Your task to perform on an android device: Go to display settings Image 0: 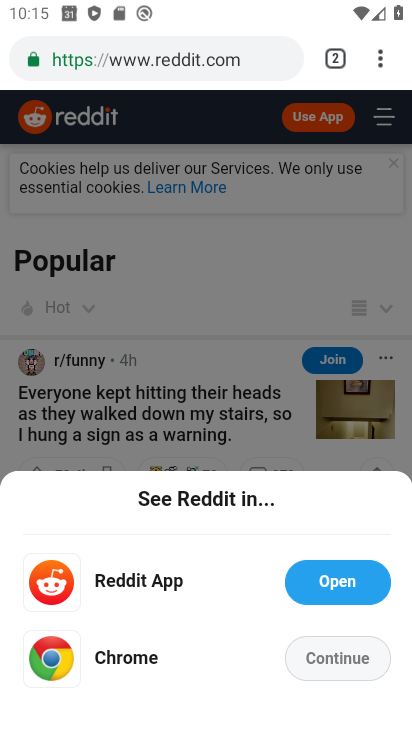
Step 0: press home button
Your task to perform on an android device: Go to display settings Image 1: 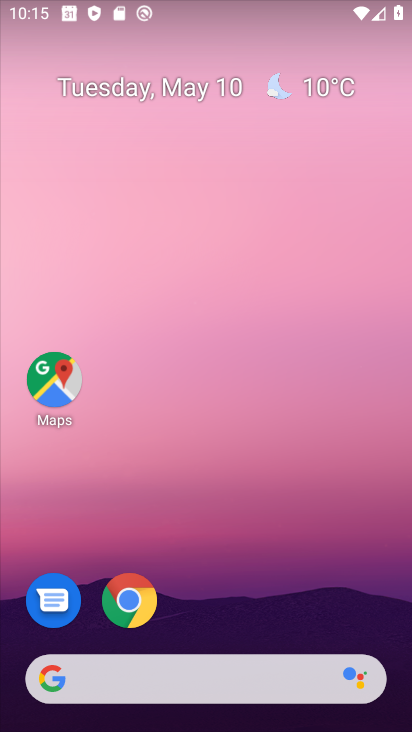
Step 1: drag from (286, 600) to (259, 204)
Your task to perform on an android device: Go to display settings Image 2: 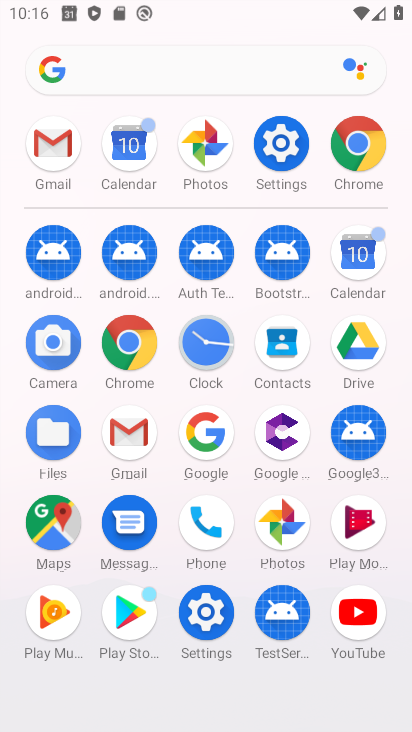
Step 2: click (288, 149)
Your task to perform on an android device: Go to display settings Image 3: 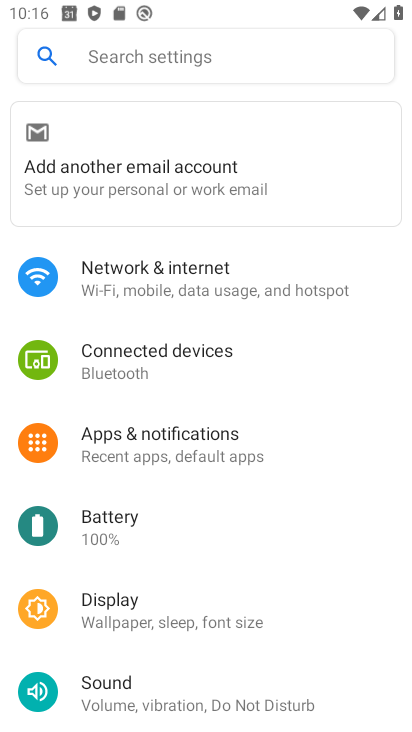
Step 3: drag from (121, 597) to (142, 353)
Your task to perform on an android device: Go to display settings Image 4: 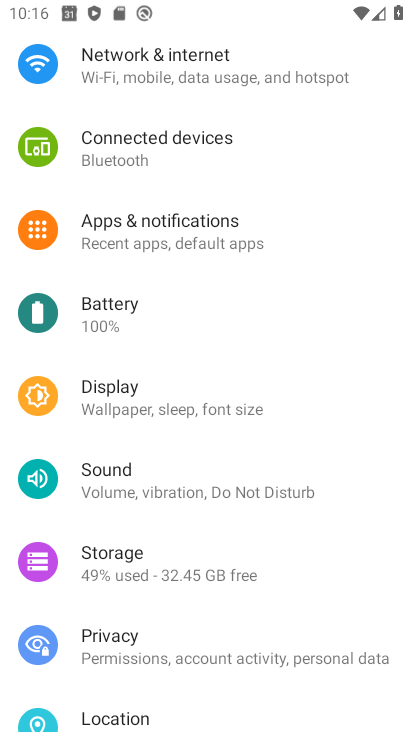
Step 4: click (140, 396)
Your task to perform on an android device: Go to display settings Image 5: 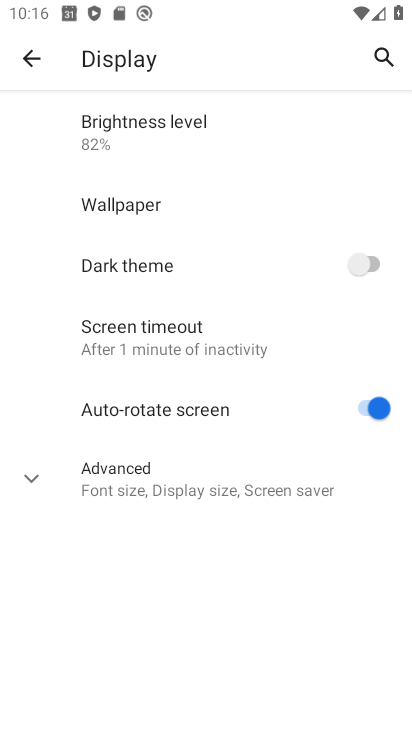
Step 5: task complete